Your task to perform on an android device: Show me productivity apps on the Play Store Image 0: 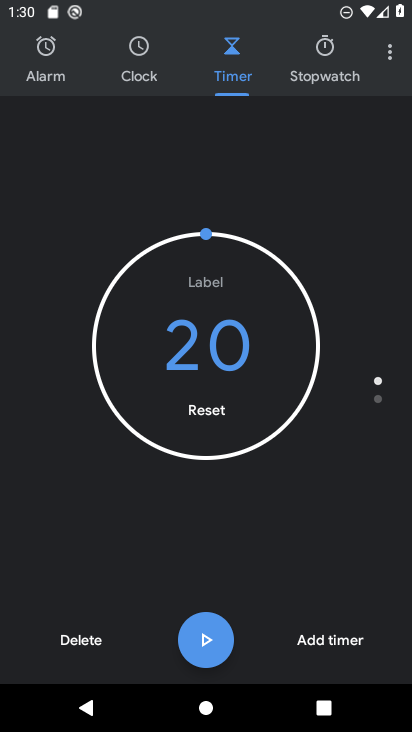
Step 0: press home button
Your task to perform on an android device: Show me productivity apps on the Play Store Image 1: 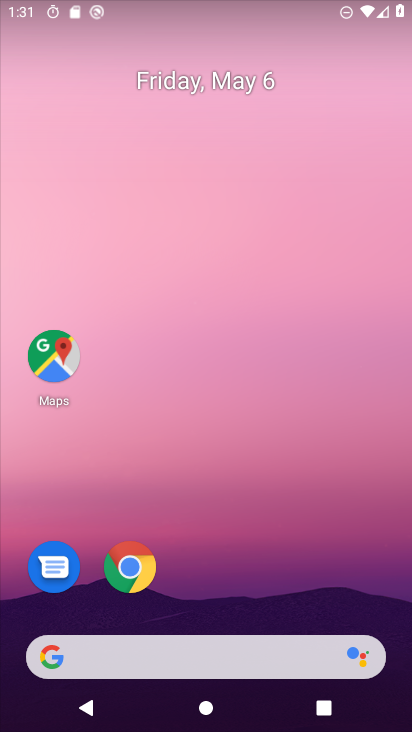
Step 1: drag from (308, 609) to (318, 3)
Your task to perform on an android device: Show me productivity apps on the Play Store Image 2: 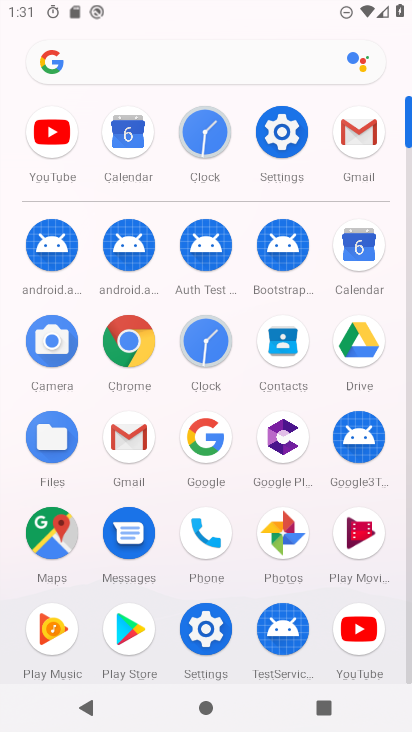
Step 2: click (128, 632)
Your task to perform on an android device: Show me productivity apps on the Play Store Image 3: 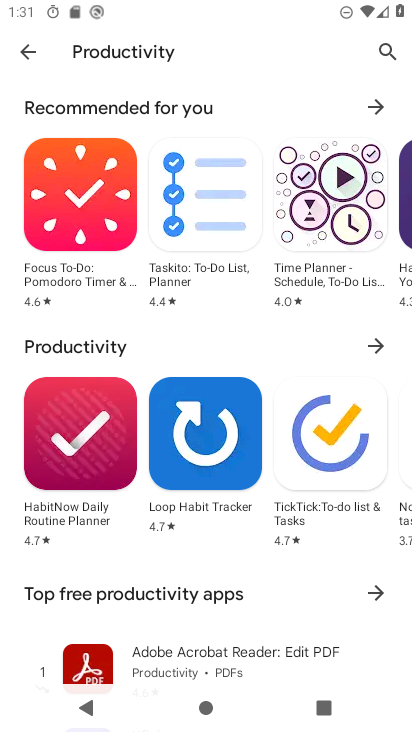
Step 3: task complete